Your task to perform on an android device: open a bookmark in the chrome app Image 0: 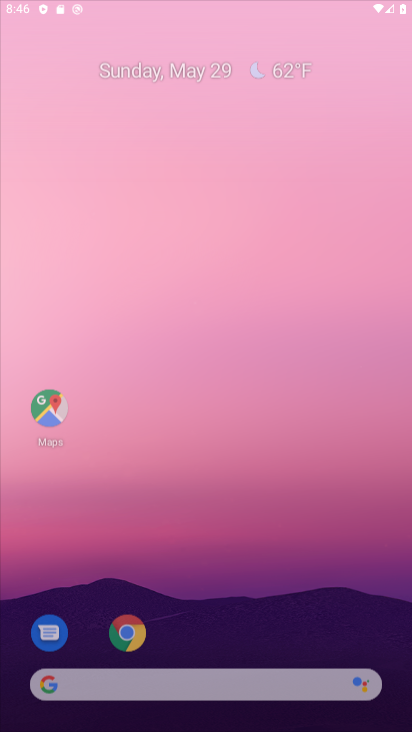
Step 0: drag from (80, 59) to (118, 58)
Your task to perform on an android device: open a bookmark in the chrome app Image 1: 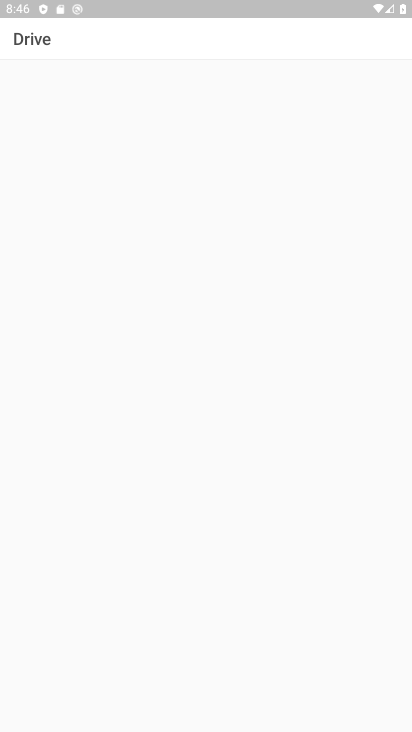
Step 1: press home button
Your task to perform on an android device: open a bookmark in the chrome app Image 2: 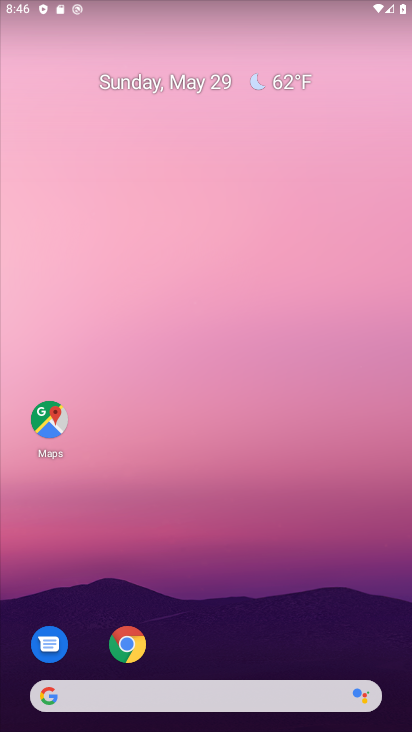
Step 2: click (119, 657)
Your task to perform on an android device: open a bookmark in the chrome app Image 3: 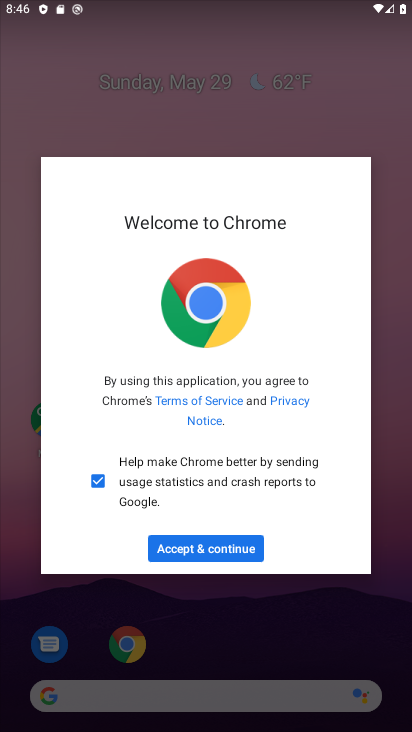
Step 3: click (223, 553)
Your task to perform on an android device: open a bookmark in the chrome app Image 4: 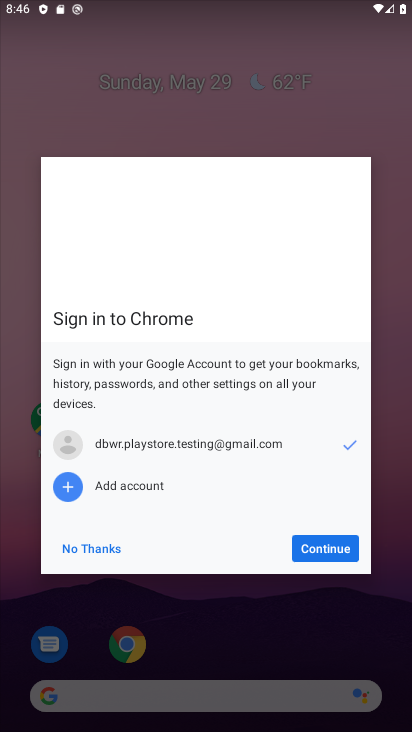
Step 4: click (328, 553)
Your task to perform on an android device: open a bookmark in the chrome app Image 5: 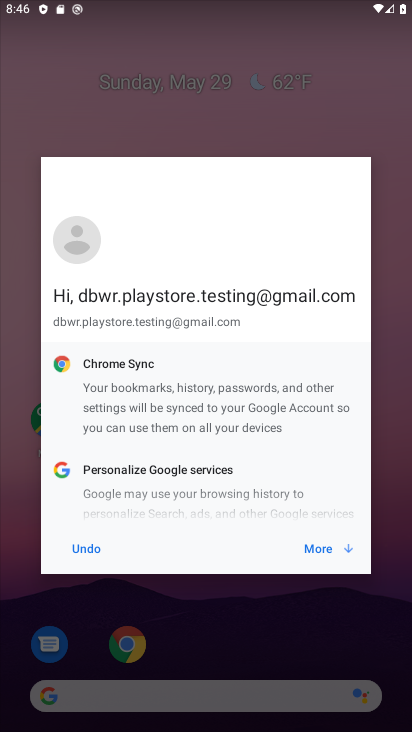
Step 5: click (332, 554)
Your task to perform on an android device: open a bookmark in the chrome app Image 6: 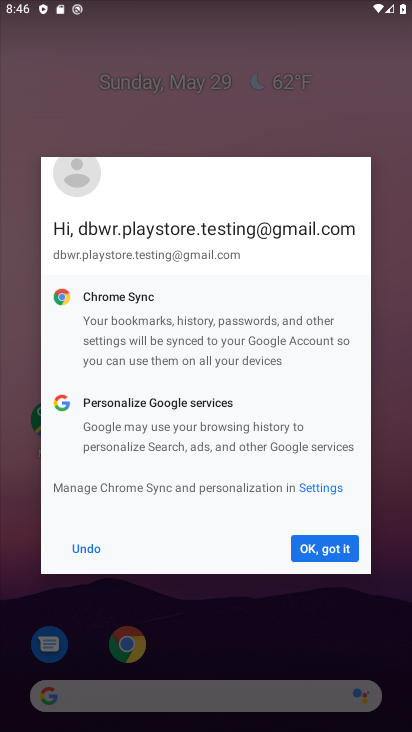
Step 6: click (331, 554)
Your task to perform on an android device: open a bookmark in the chrome app Image 7: 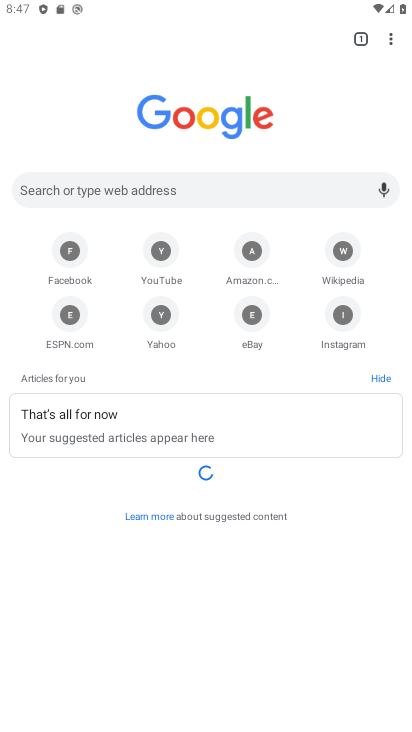
Step 7: click (385, 37)
Your task to perform on an android device: open a bookmark in the chrome app Image 8: 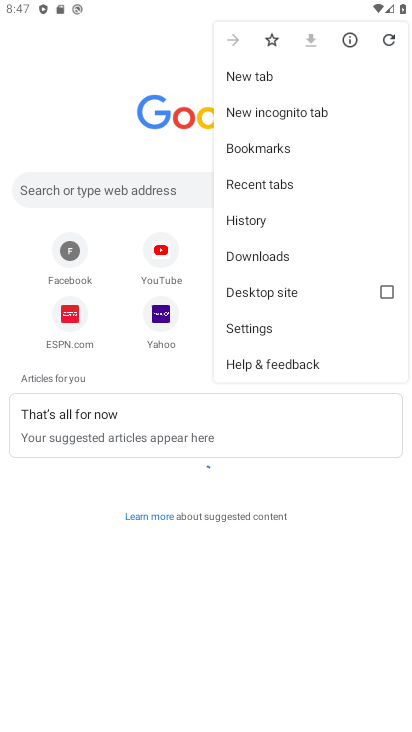
Step 8: click (264, 145)
Your task to perform on an android device: open a bookmark in the chrome app Image 9: 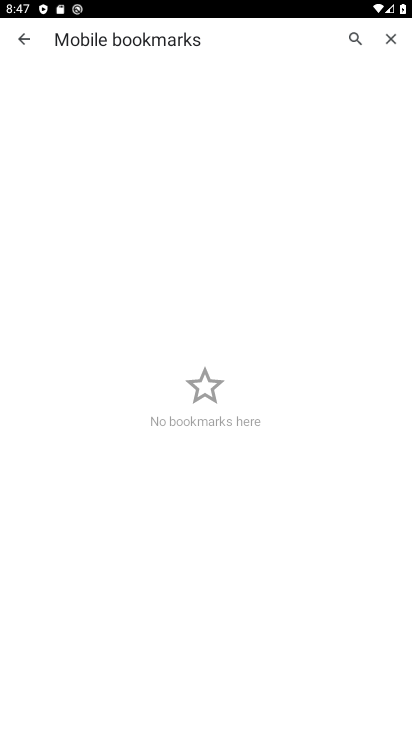
Step 9: task complete